Your task to perform on an android device: Search for pizza restaurants on Maps Image 0: 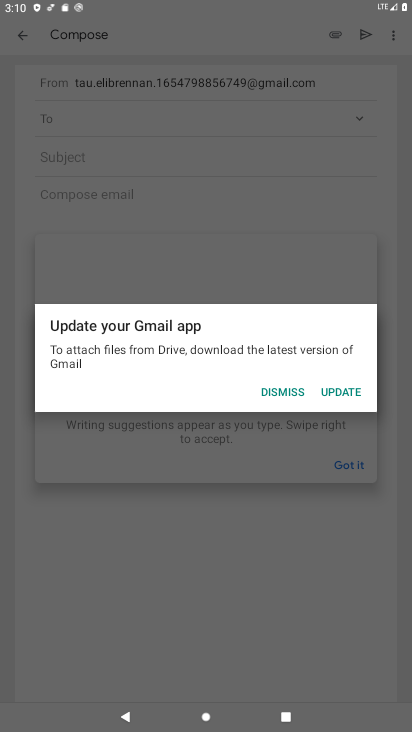
Step 0: press home button
Your task to perform on an android device: Search for pizza restaurants on Maps Image 1: 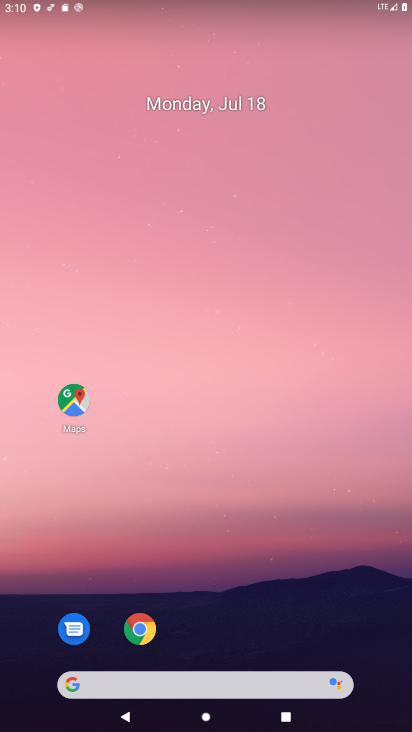
Step 1: click (81, 402)
Your task to perform on an android device: Search for pizza restaurants on Maps Image 2: 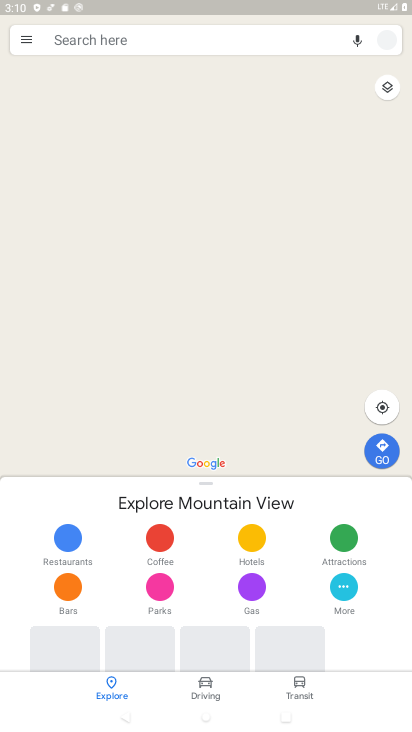
Step 2: click (168, 37)
Your task to perform on an android device: Search for pizza restaurants on Maps Image 3: 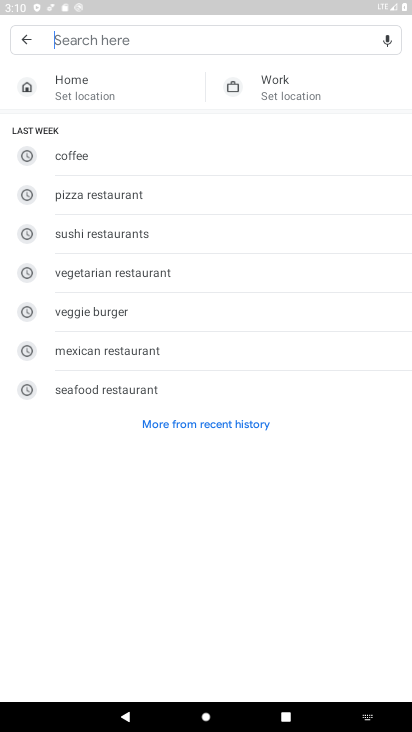
Step 3: type "Pizza restaurants"
Your task to perform on an android device: Search for pizza restaurants on Maps Image 4: 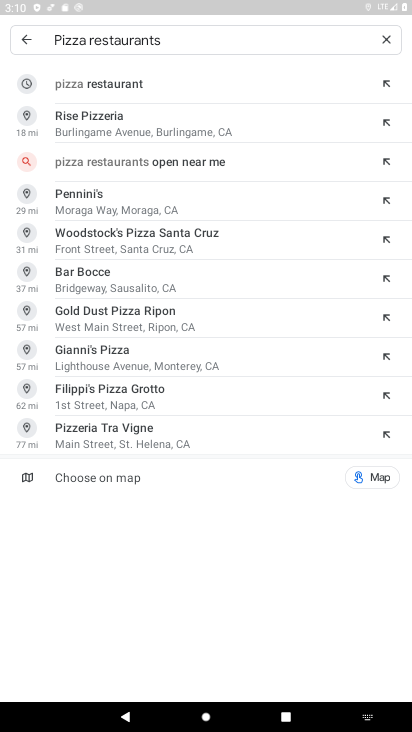
Step 4: click (129, 86)
Your task to perform on an android device: Search for pizza restaurants on Maps Image 5: 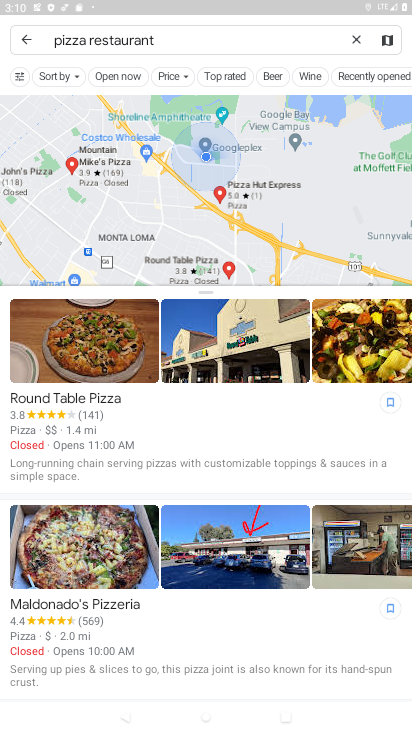
Step 5: task complete